Your task to perform on an android device: empty trash in the gmail app Image 0: 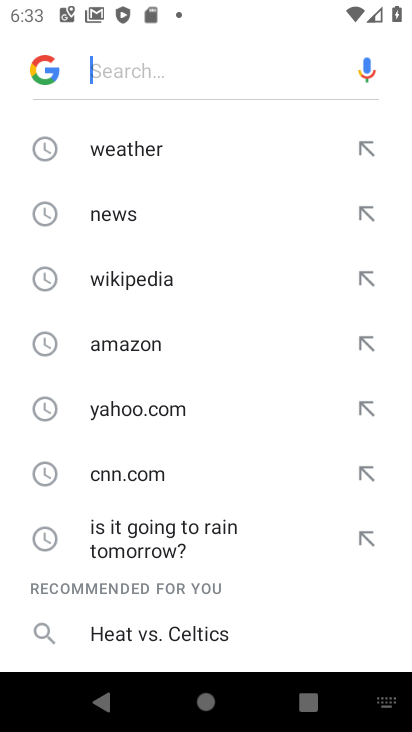
Step 0: press home button
Your task to perform on an android device: empty trash in the gmail app Image 1: 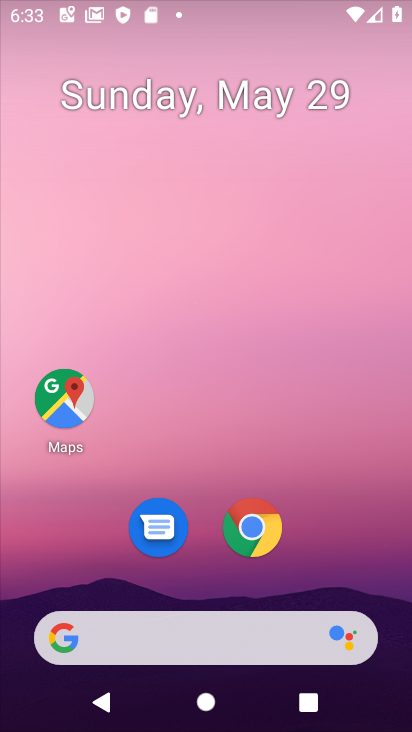
Step 1: drag from (330, 572) to (290, 19)
Your task to perform on an android device: empty trash in the gmail app Image 2: 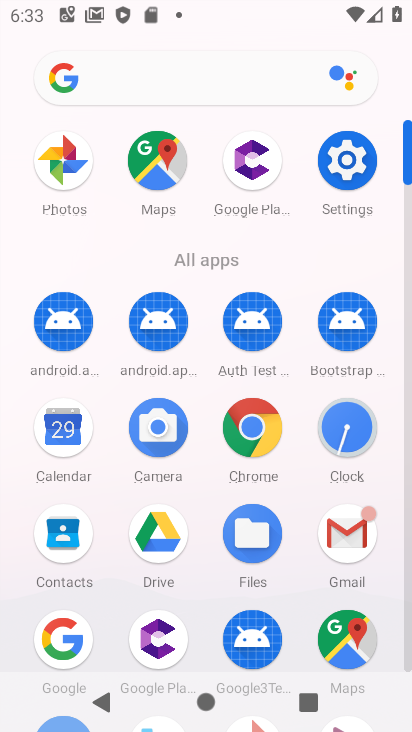
Step 2: click (353, 544)
Your task to perform on an android device: empty trash in the gmail app Image 3: 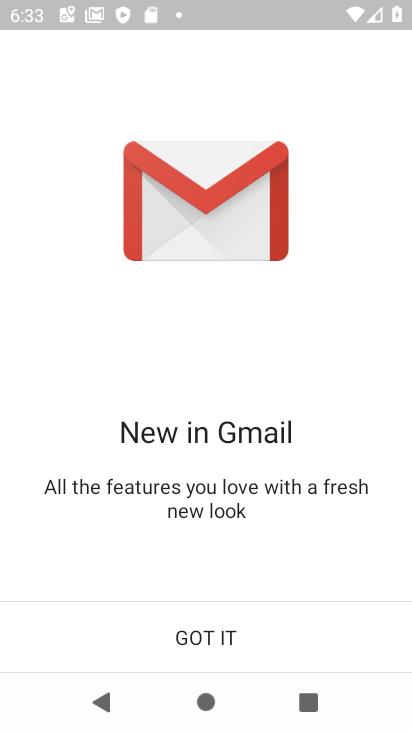
Step 3: click (127, 651)
Your task to perform on an android device: empty trash in the gmail app Image 4: 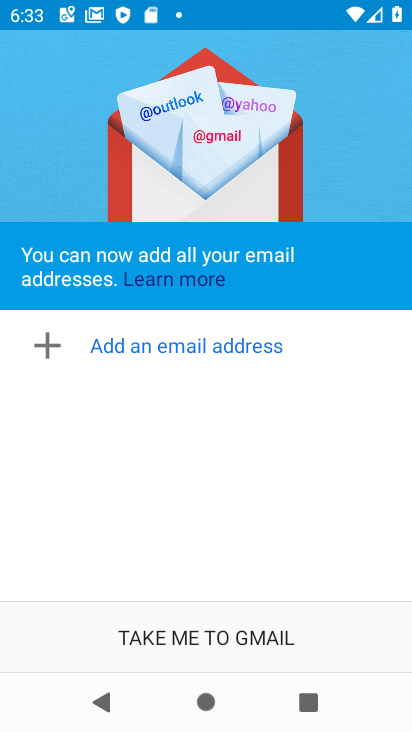
Step 4: click (127, 651)
Your task to perform on an android device: empty trash in the gmail app Image 5: 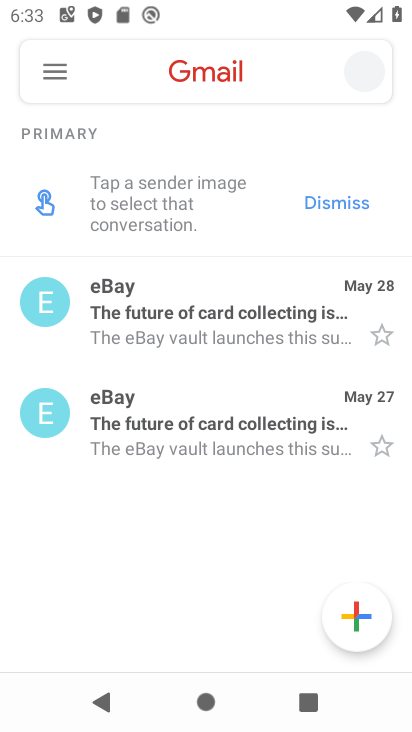
Step 5: click (41, 70)
Your task to perform on an android device: empty trash in the gmail app Image 6: 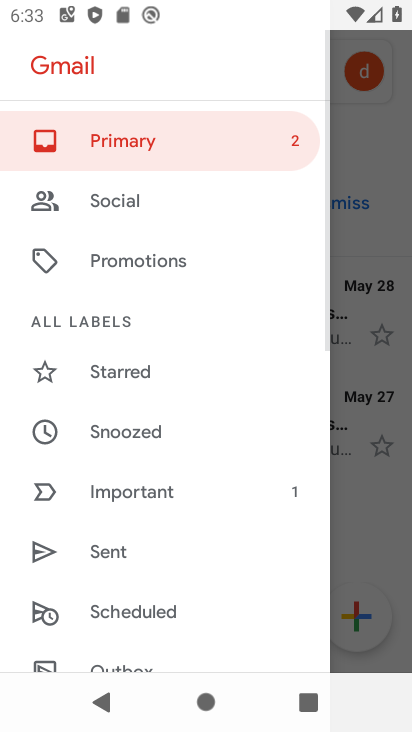
Step 6: drag from (115, 594) to (176, 132)
Your task to perform on an android device: empty trash in the gmail app Image 7: 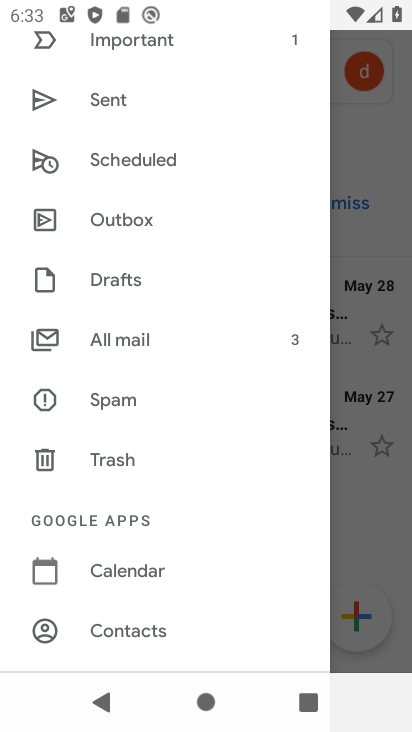
Step 7: click (111, 458)
Your task to perform on an android device: empty trash in the gmail app Image 8: 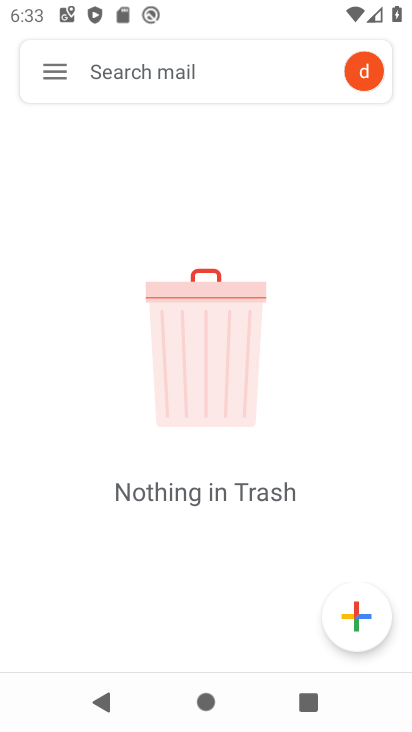
Step 8: task complete